Your task to perform on an android device: Open the map Image 0: 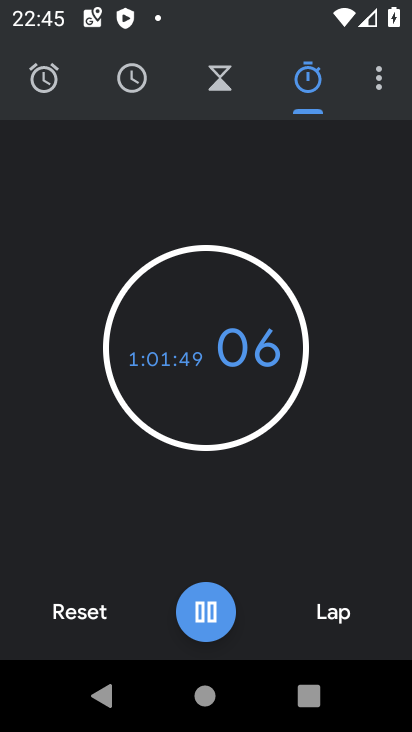
Step 0: press home button
Your task to perform on an android device: Open the map Image 1: 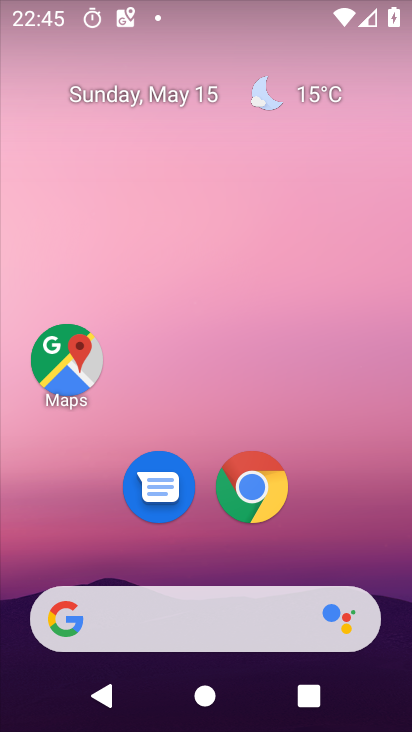
Step 1: click (41, 387)
Your task to perform on an android device: Open the map Image 2: 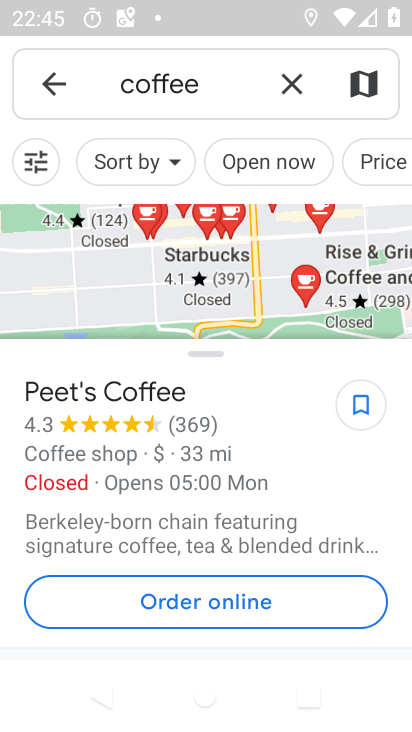
Step 2: click (48, 80)
Your task to perform on an android device: Open the map Image 3: 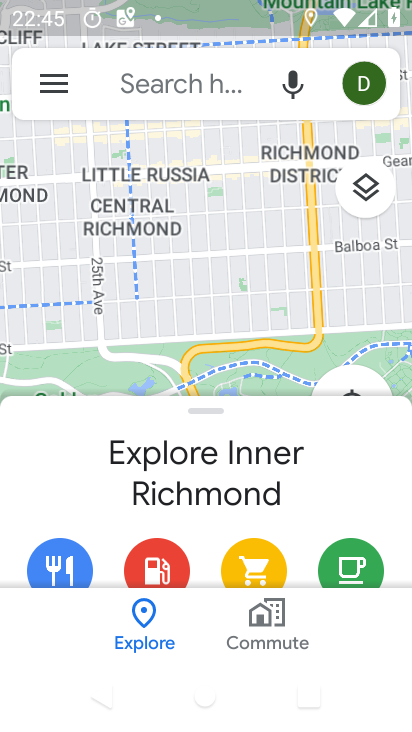
Step 3: task complete